Your task to perform on an android device: check data usage Image 0: 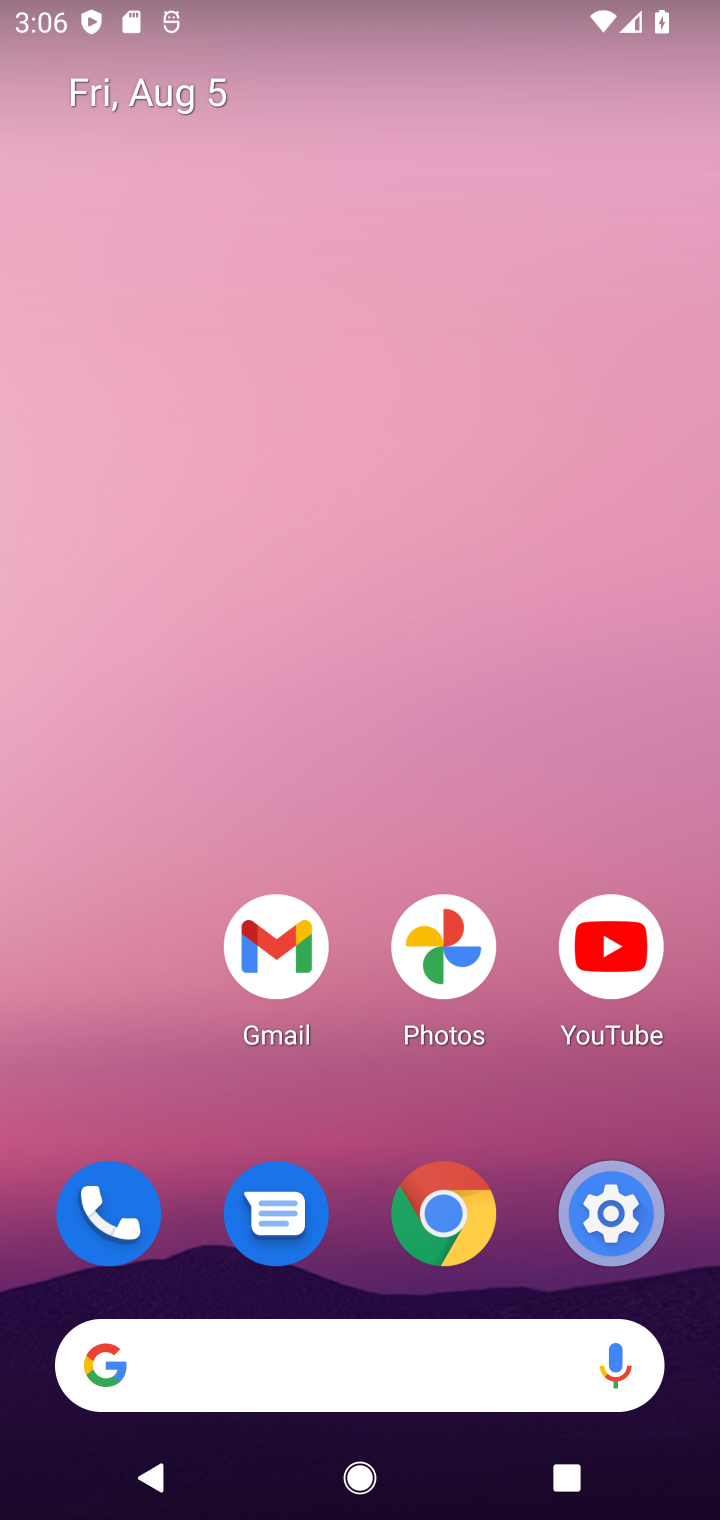
Step 0: click (627, 1209)
Your task to perform on an android device: check data usage Image 1: 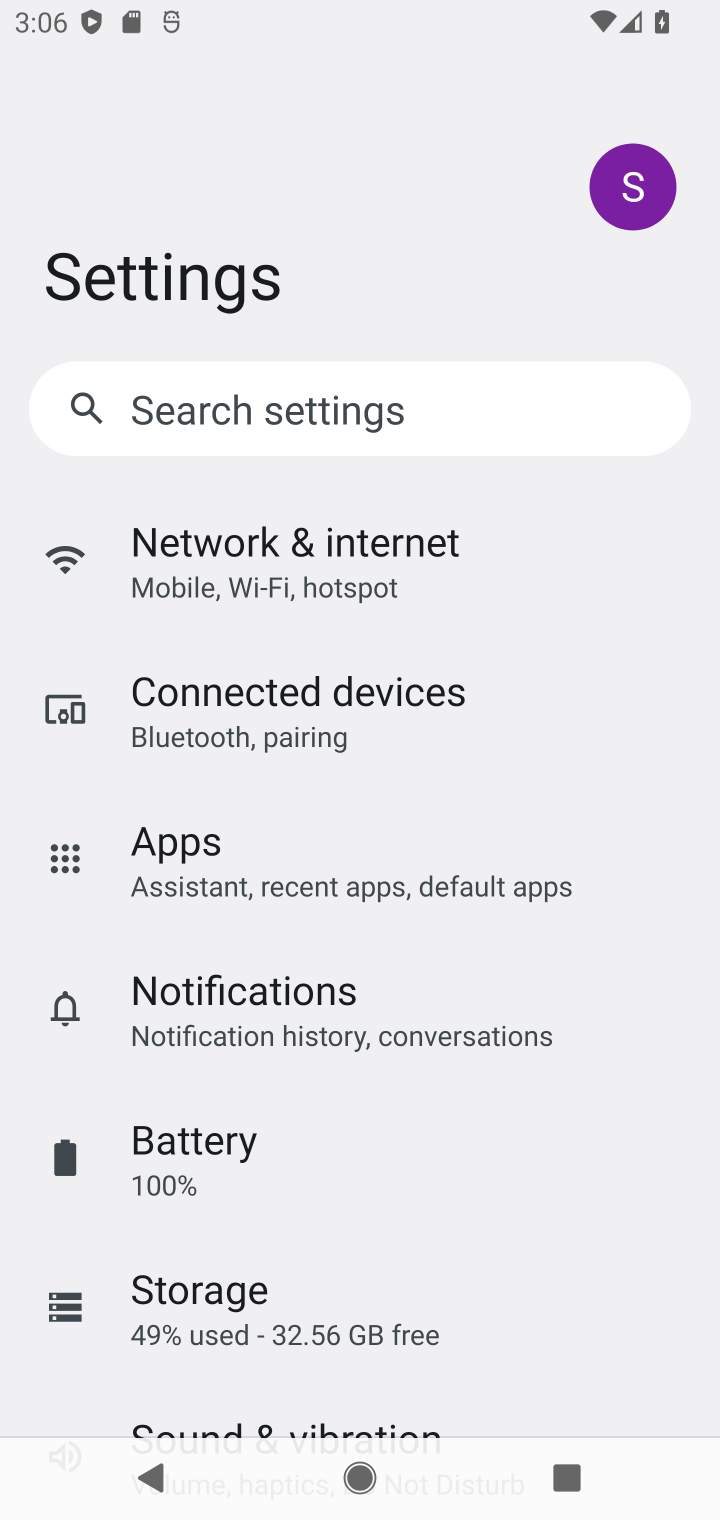
Step 1: click (383, 568)
Your task to perform on an android device: check data usage Image 2: 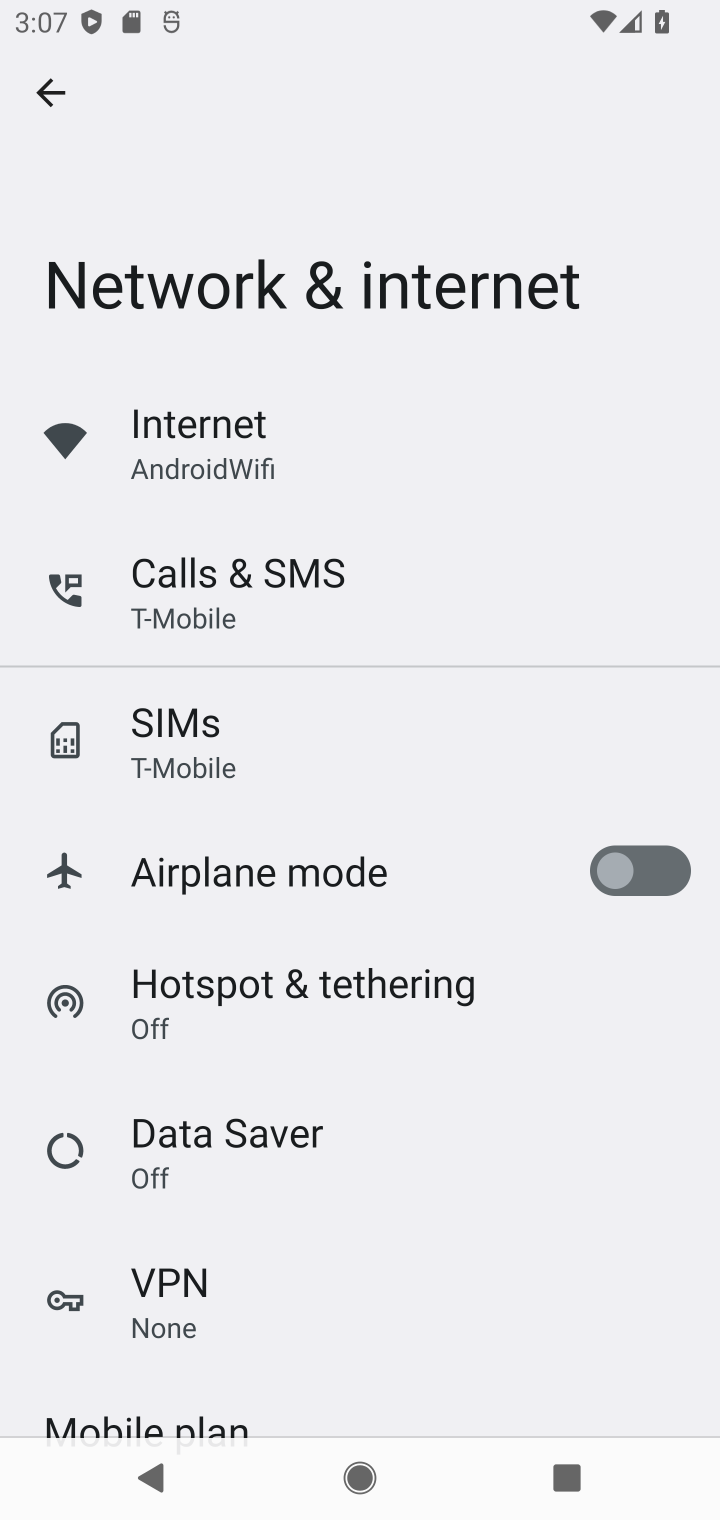
Step 2: drag from (272, 1223) to (240, 322)
Your task to perform on an android device: check data usage Image 3: 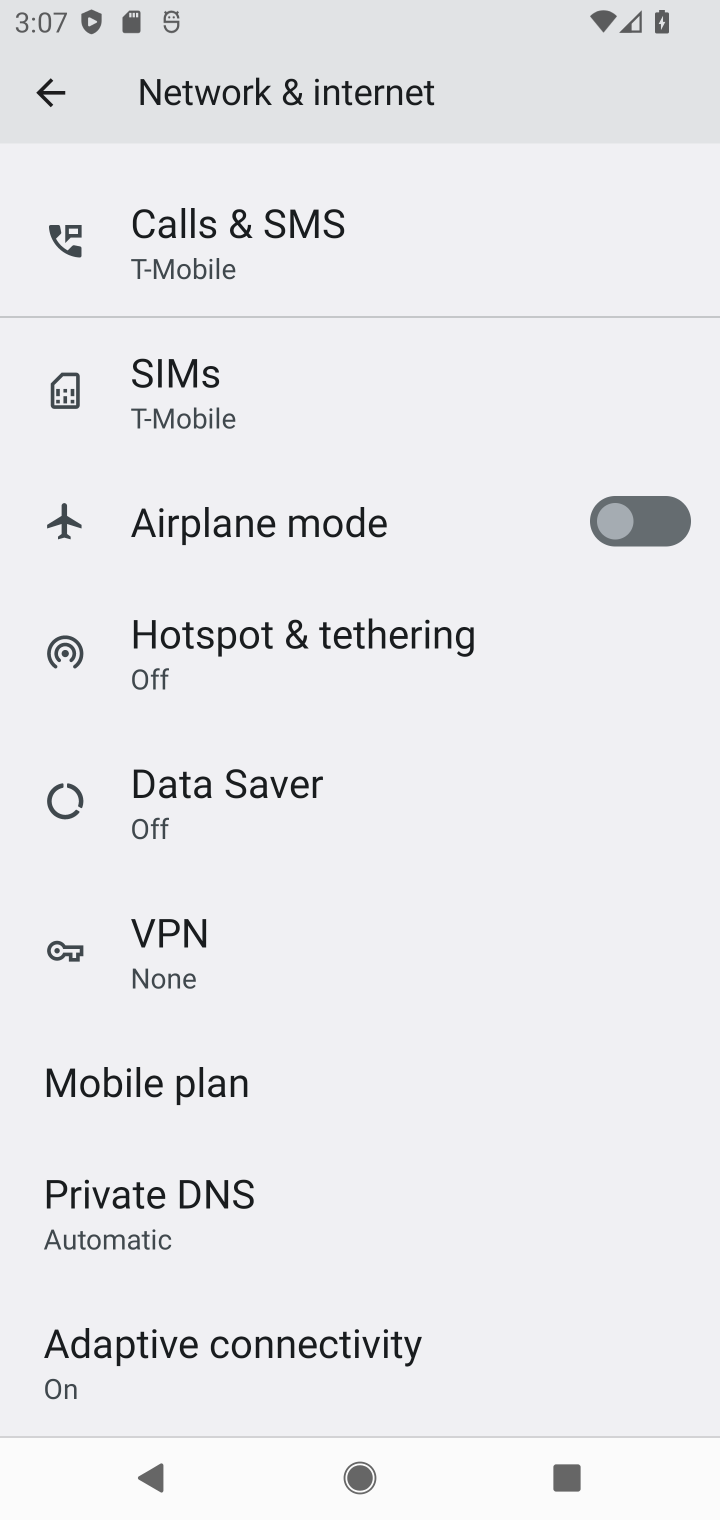
Step 3: click (193, 397)
Your task to perform on an android device: check data usage Image 4: 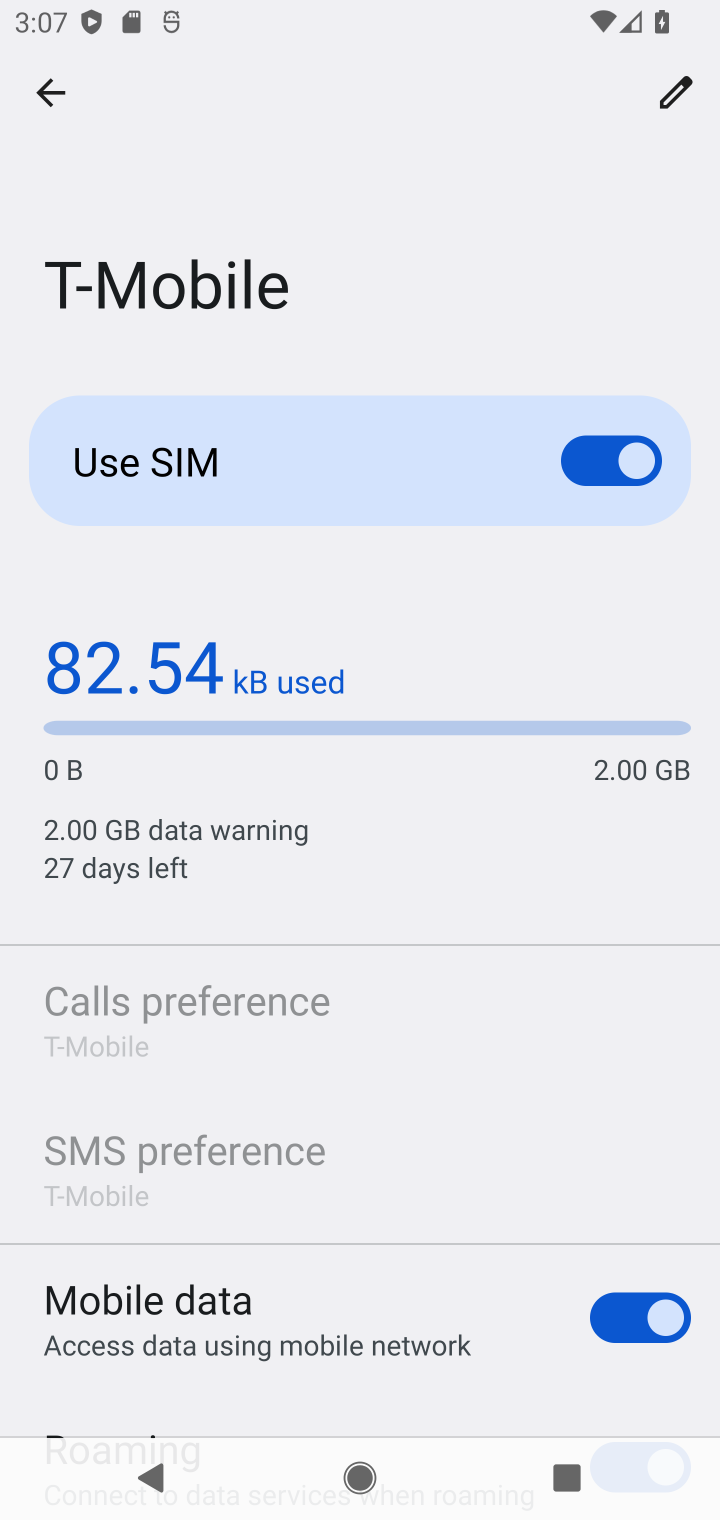
Step 4: task complete